Your task to perform on an android device: Go to Google maps Image 0: 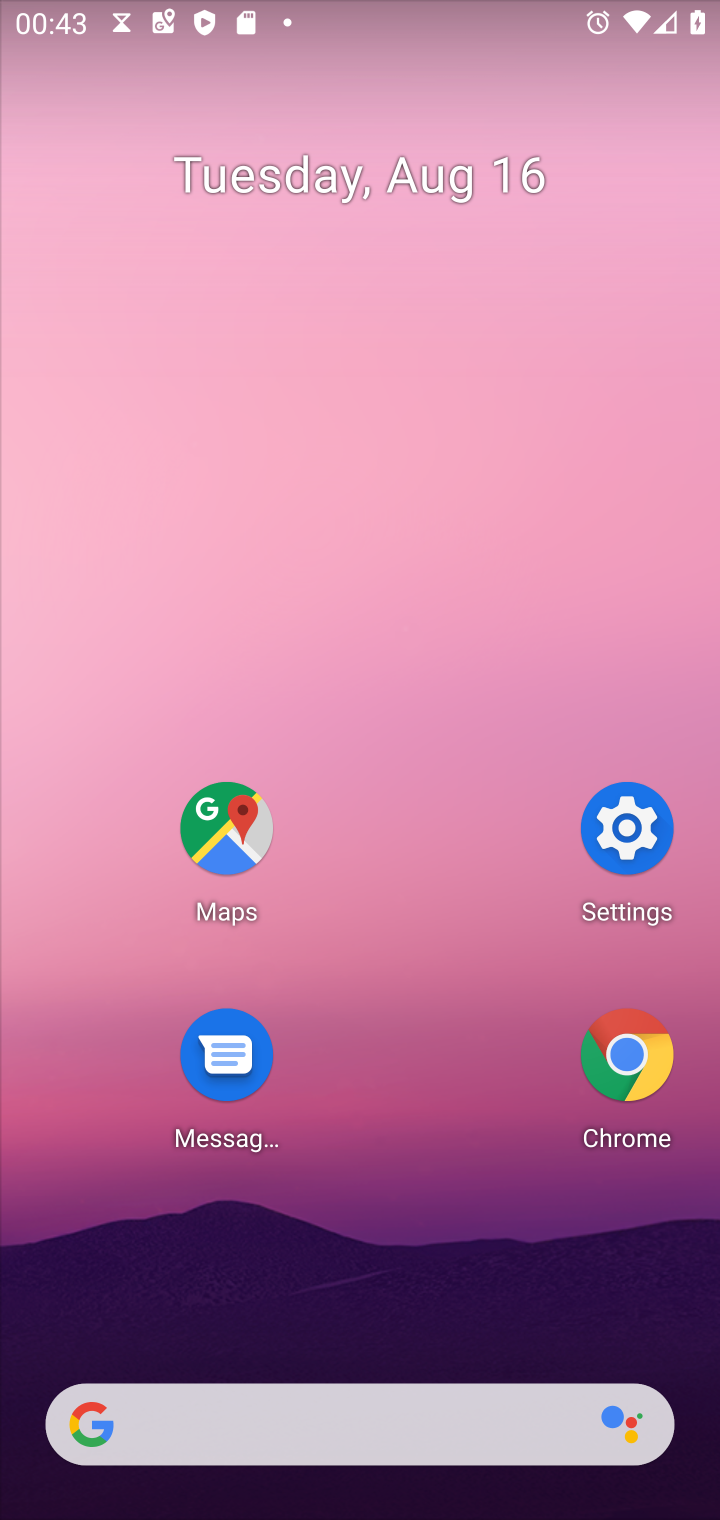
Step 0: press home button
Your task to perform on an android device: Go to Google maps Image 1: 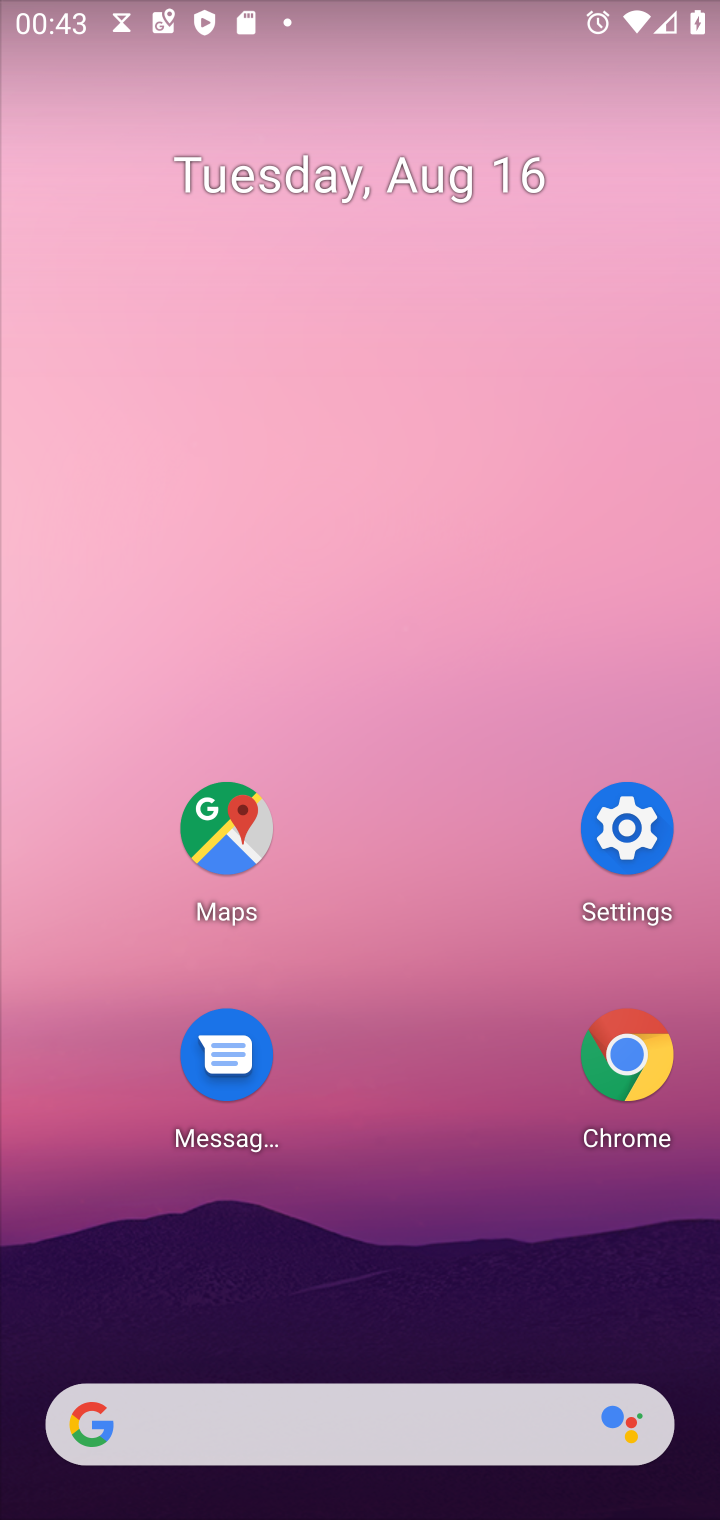
Step 1: click (216, 841)
Your task to perform on an android device: Go to Google maps Image 2: 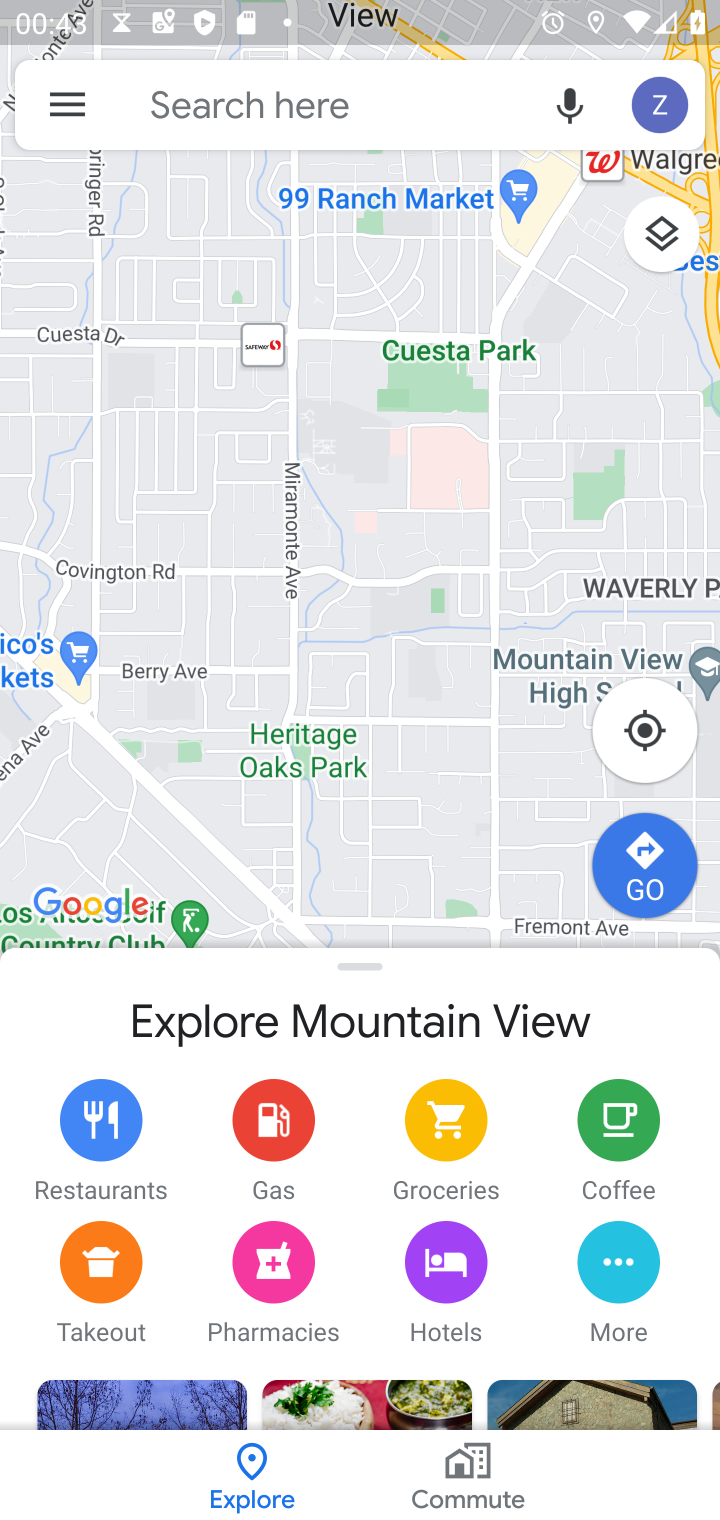
Step 2: task complete